Your task to perform on an android device: Add apple airpods to the cart on newegg, then select checkout. Image 0: 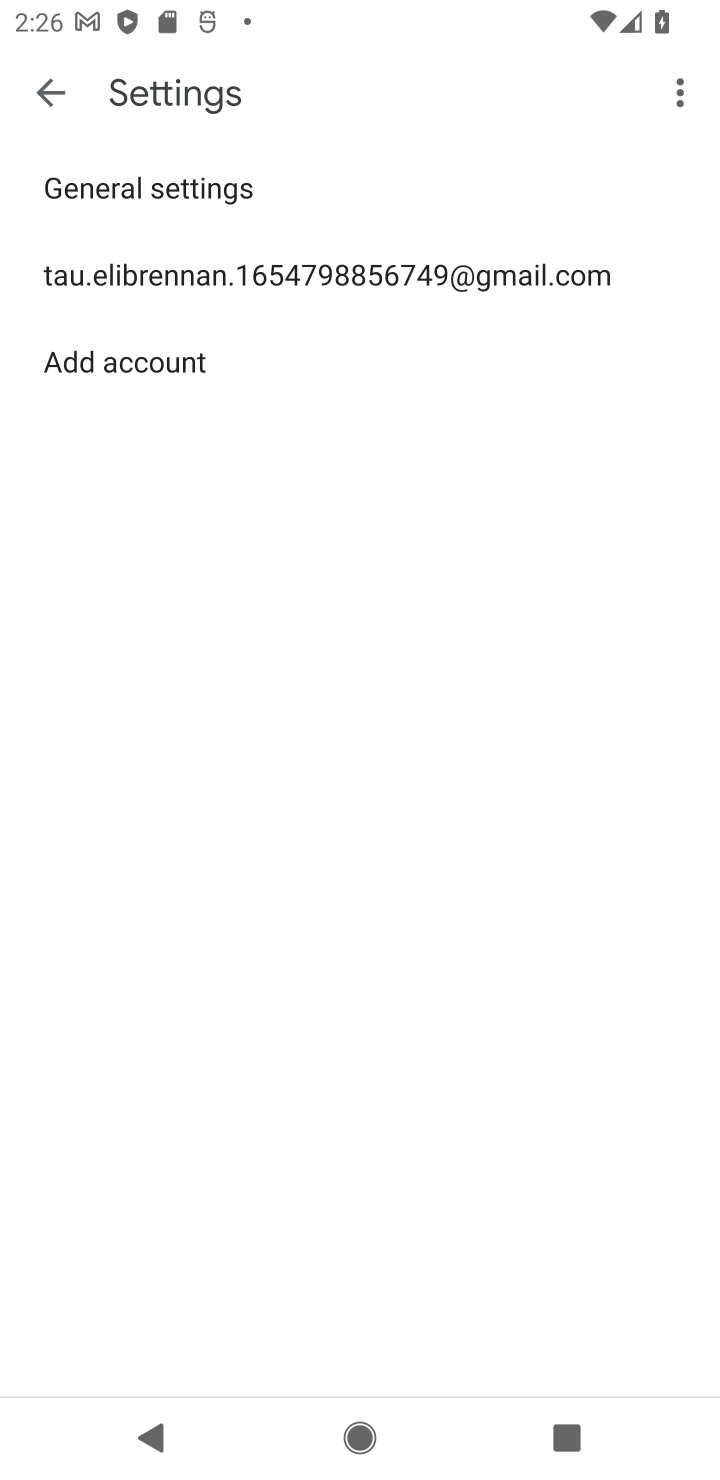
Step 0: press home button
Your task to perform on an android device: Add apple airpods to the cart on newegg, then select checkout. Image 1: 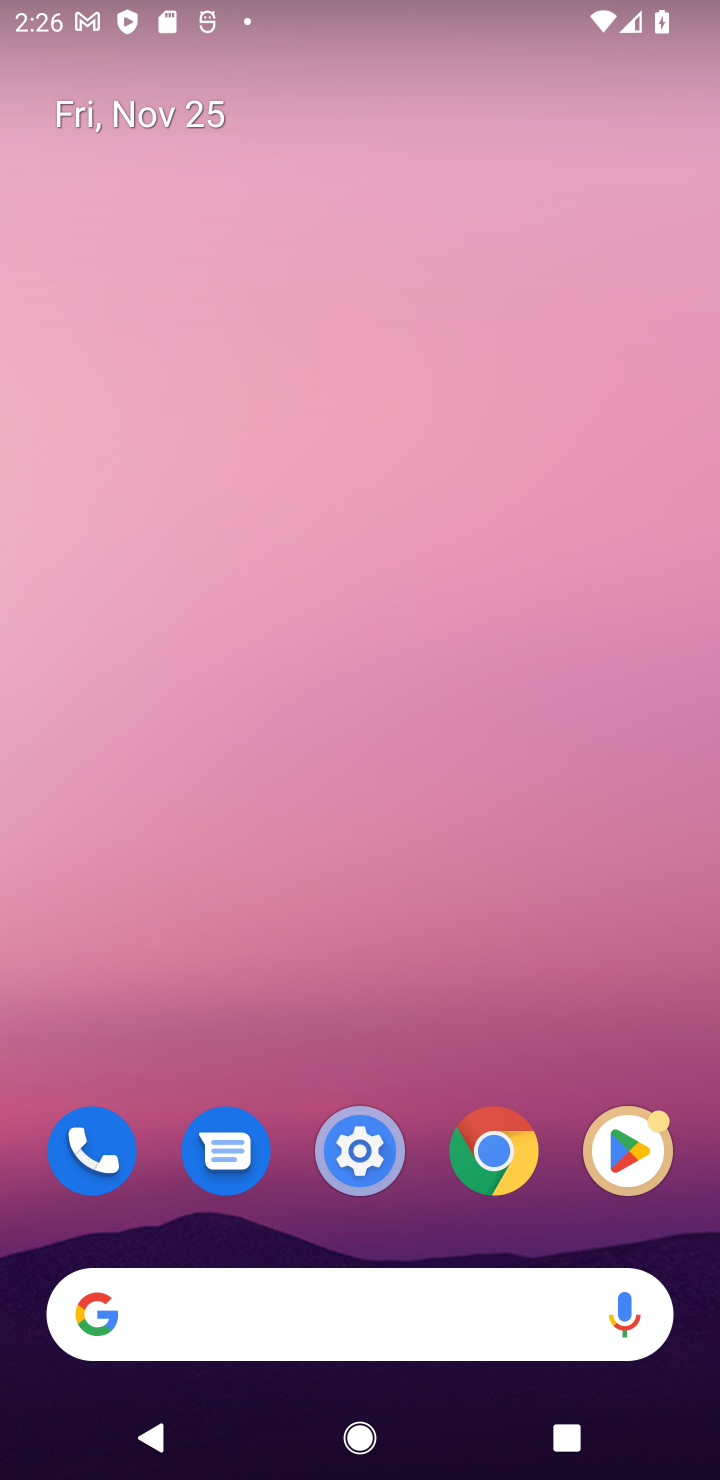
Step 1: click (232, 1268)
Your task to perform on an android device: Add apple airpods to the cart on newegg, then select checkout. Image 2: 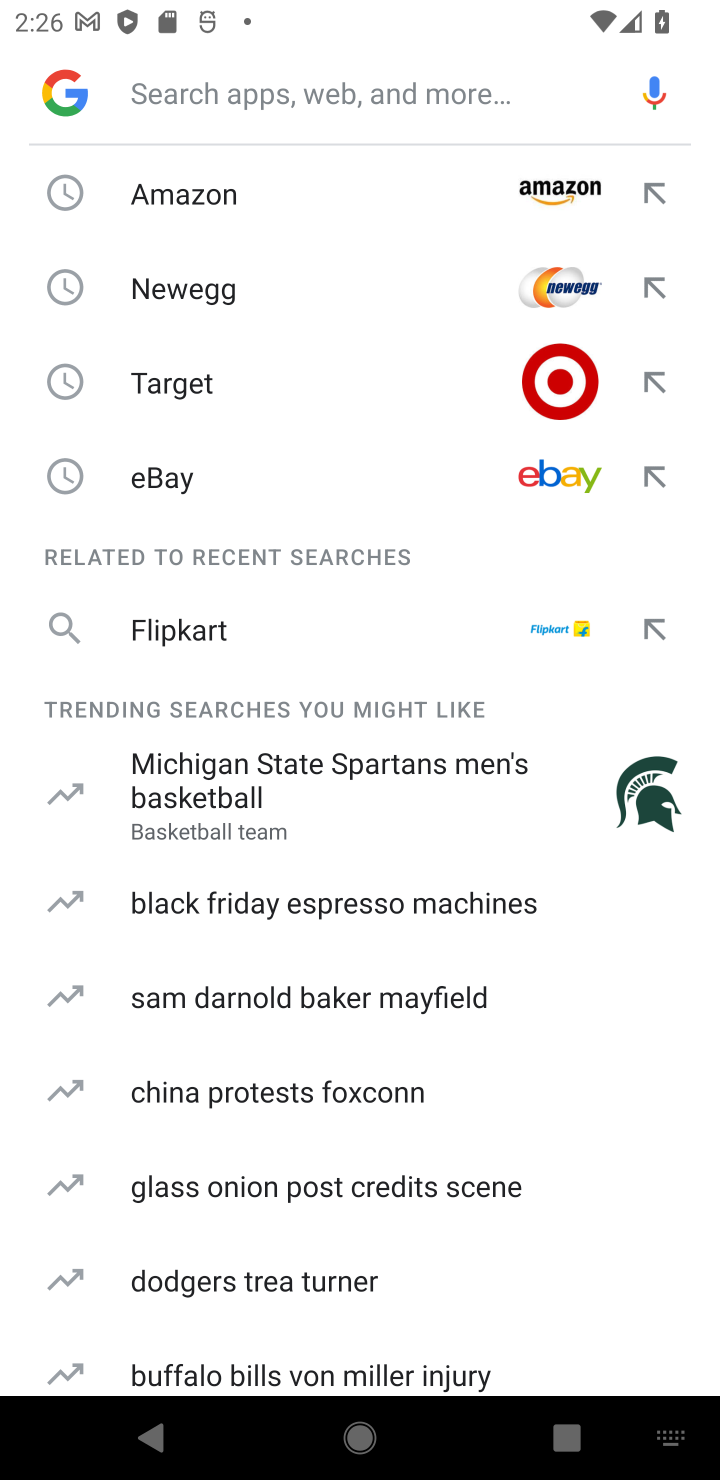
Step 2: type "newegg"
Your task to perform on an android device: Add apple airpods to the cart on newegg, then select checkout. Image 3: 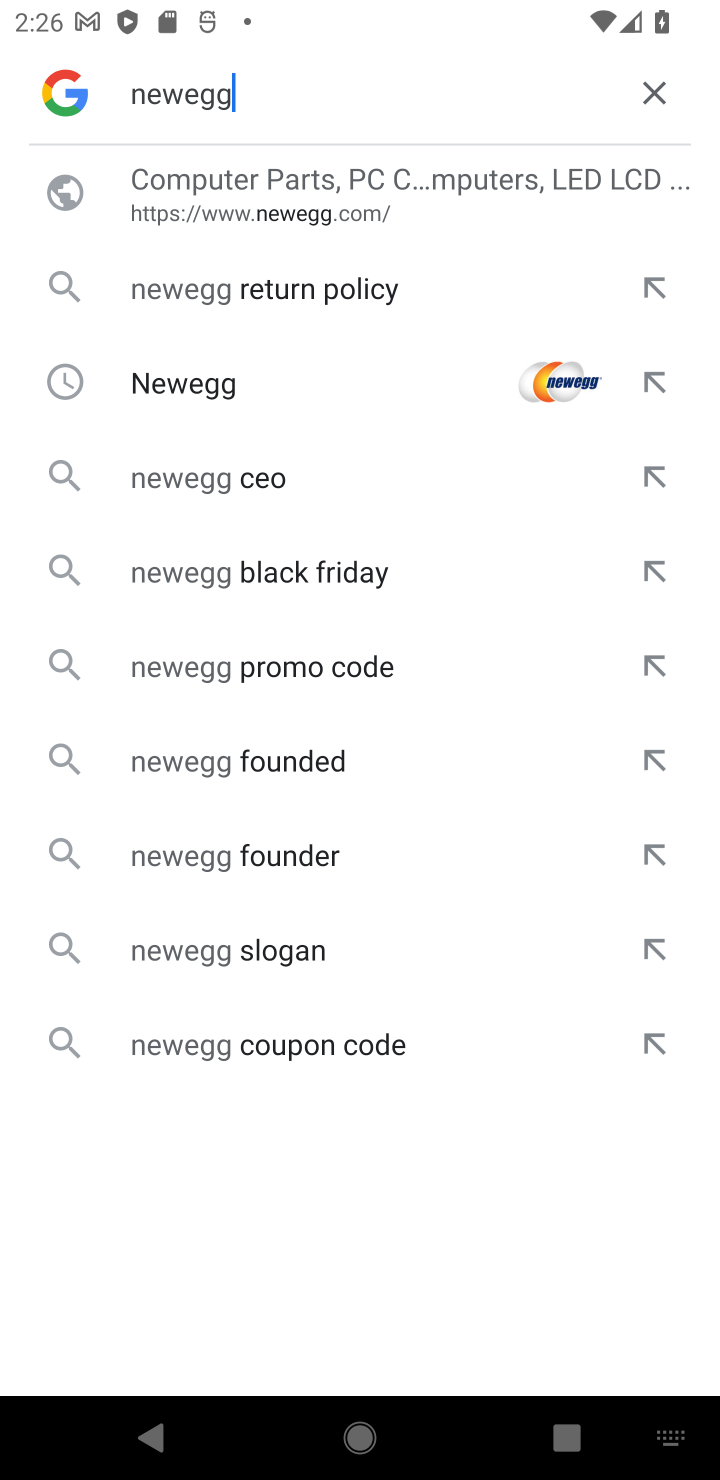
Step 3: click (204, 188)
Your task to perform on an android device: Add apple airpods to the cart on newegg, then select checkout. Image 4: 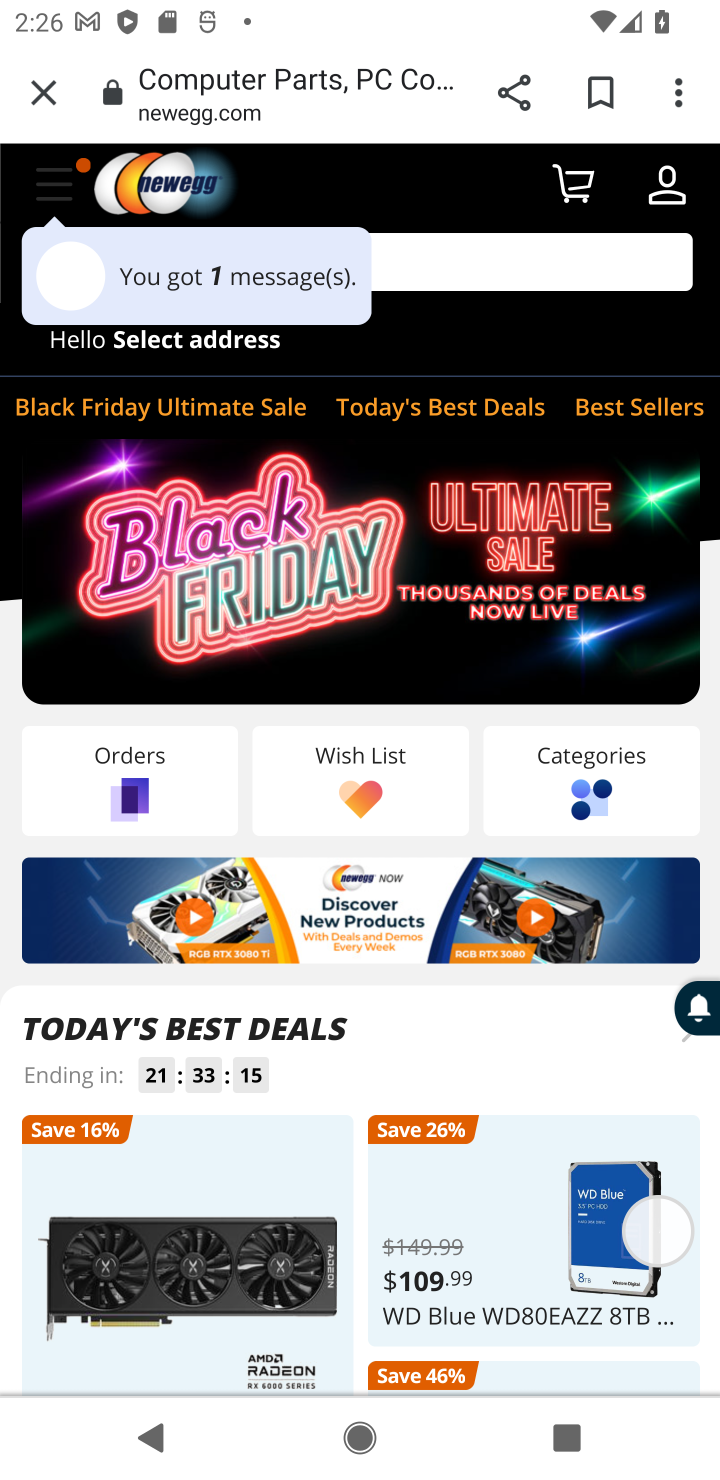
Step 4: click (542, 264)
Your task to perform on an android device: Add apple airpods to the cart on newegg, then select checkout. Image 5: 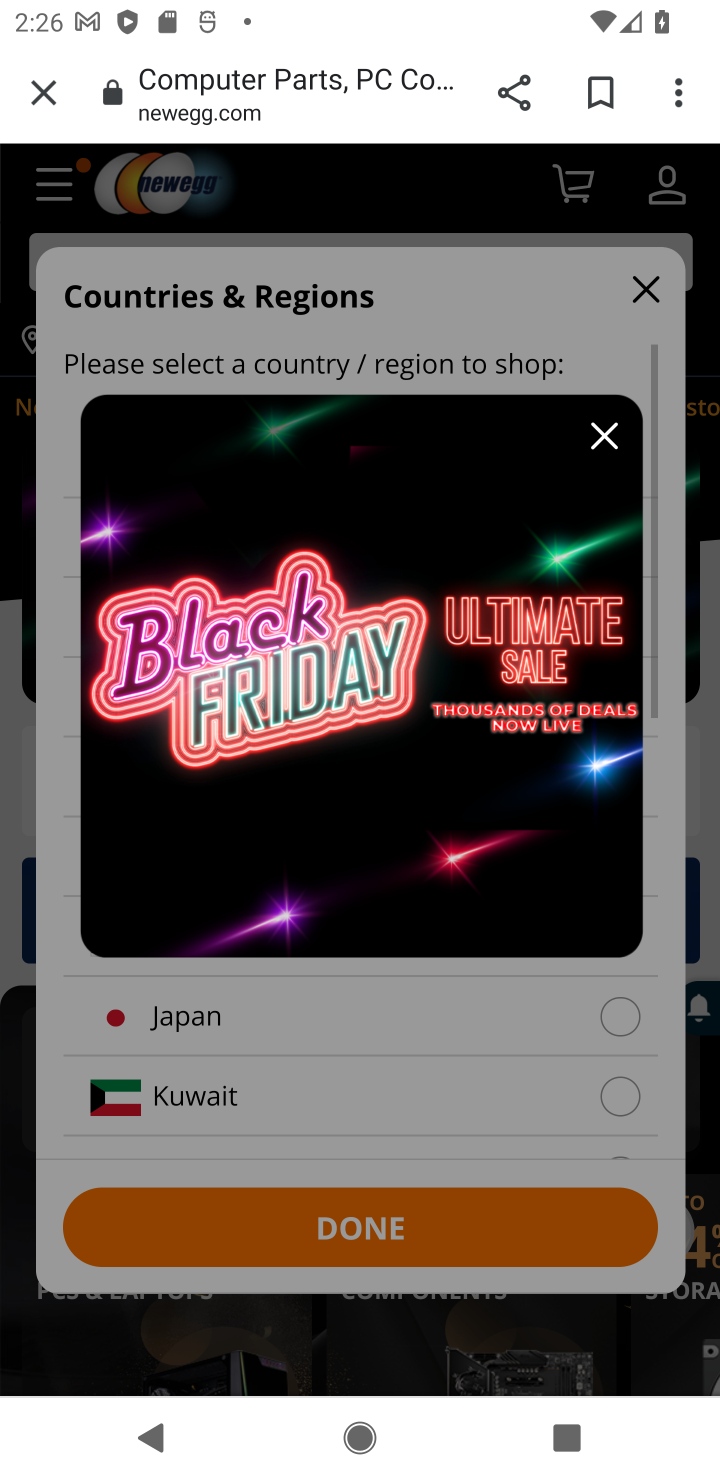
Step 5: type "apple airpod"
Your task to perform on an android device: Add apple airpods to the cart on newegg, then select checkout. Image 6: 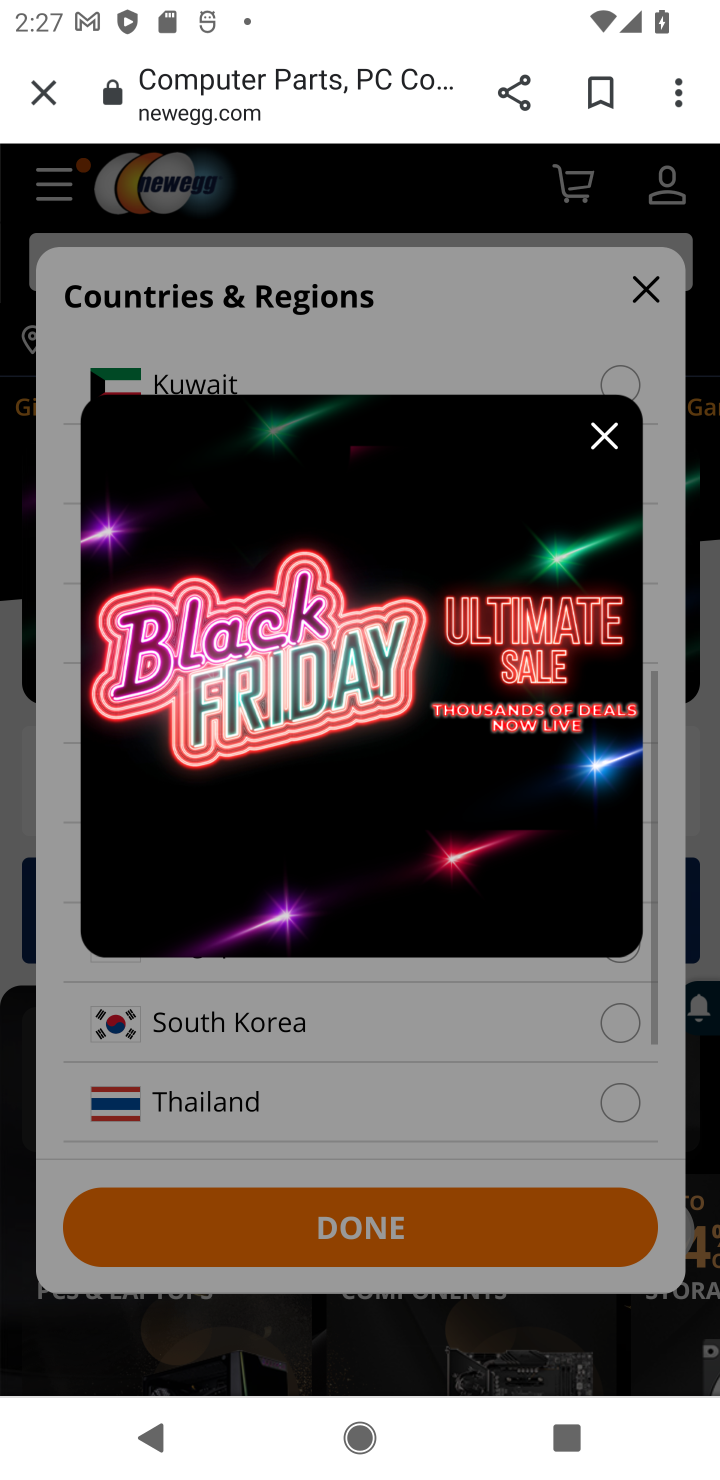
Step 6: click (598, 470)
Your task to perform on an android device: Add apple airpods to the cart on newegg, then select checkout. Image 7: 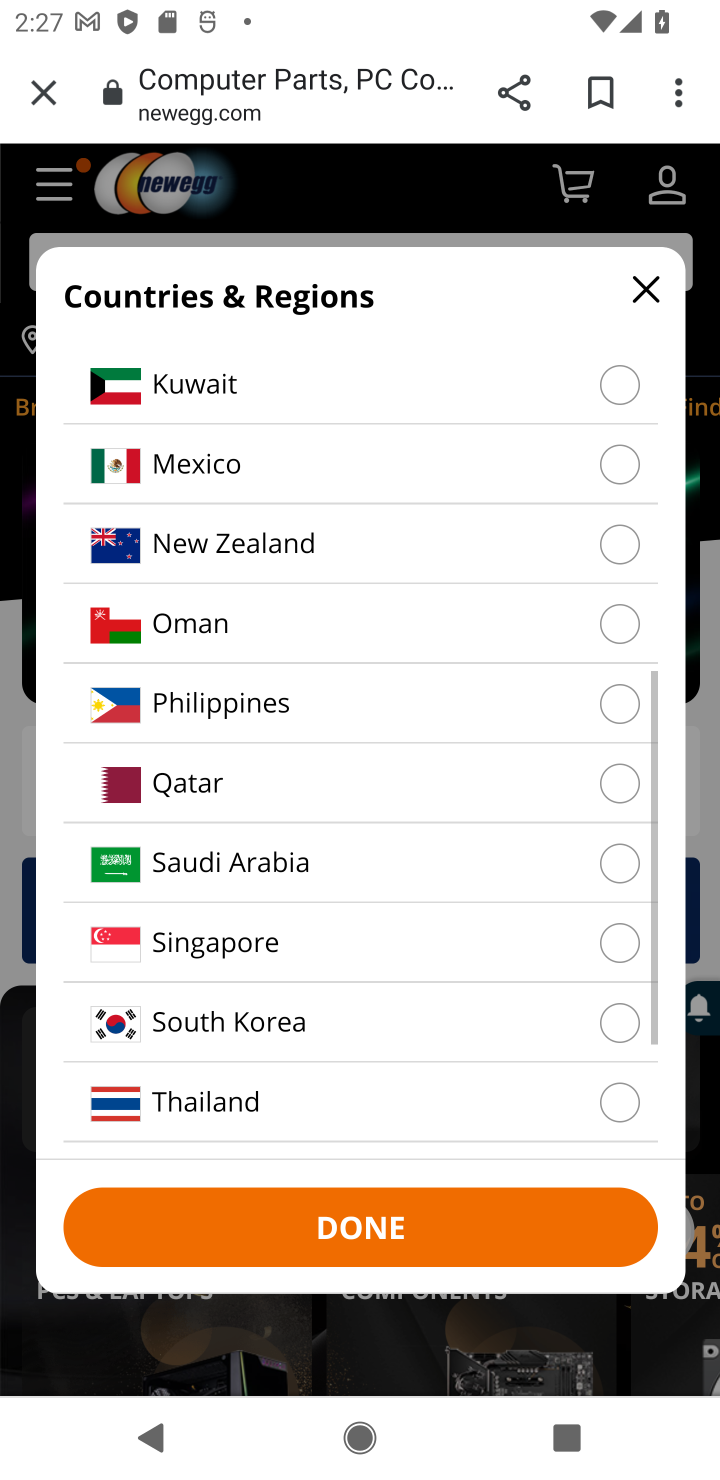
Step 7: click (595, 381)
Your task to perform on an android device: Add apple airpods to the cart on newegg, then select checkout. Image 8: 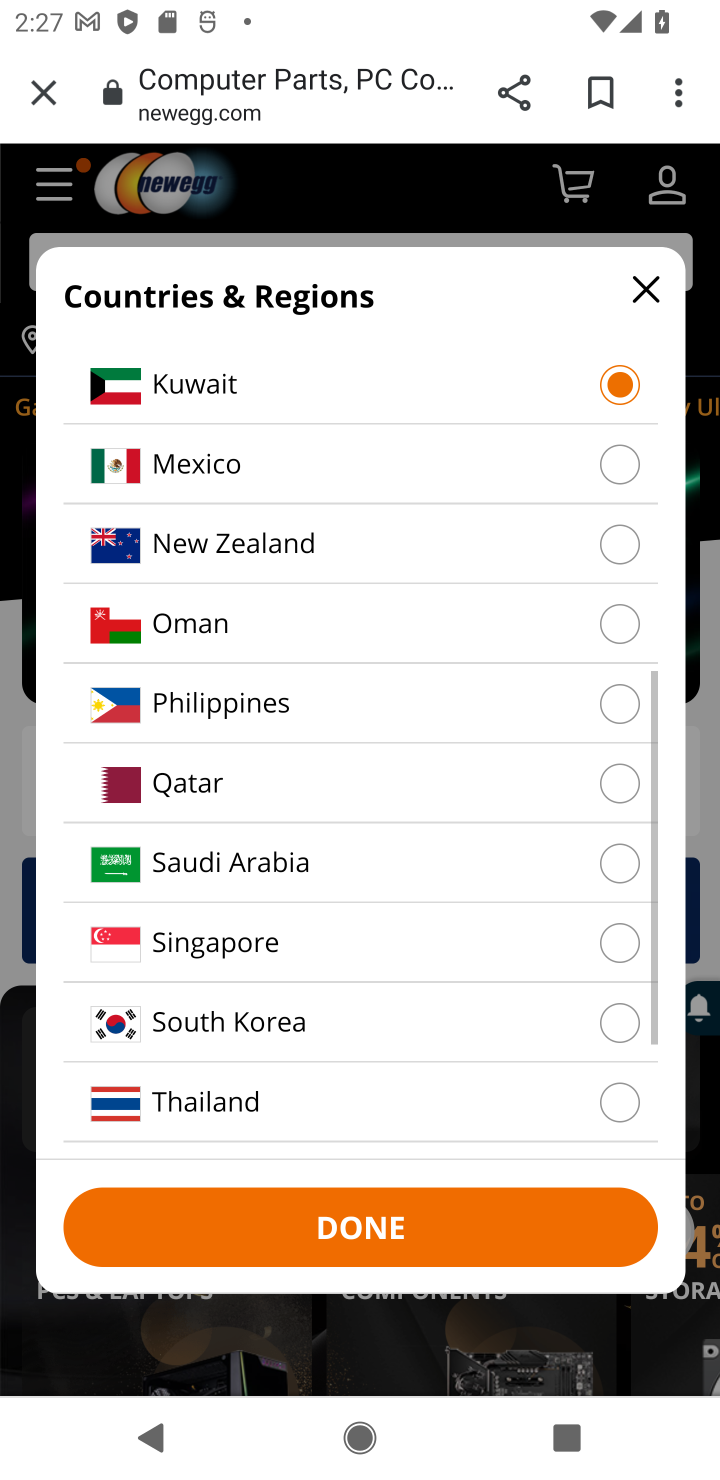
Step 8: task complete